Your task to perform on an android device: turn smart compose on in the gmail app Image 0: 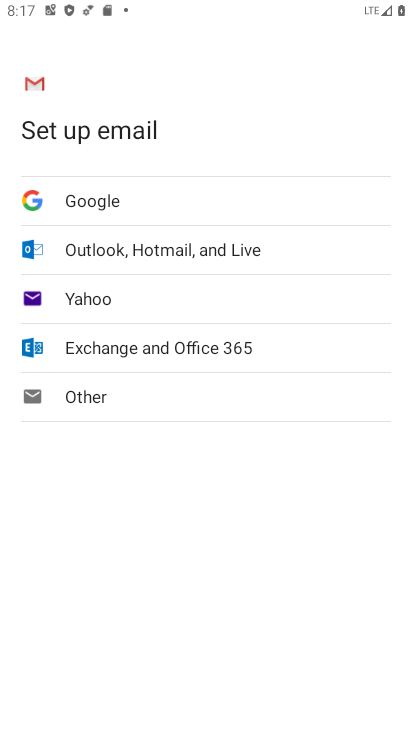
Step 0: press home button
Your task to perform on an android device: turn smart compose on in the gmail app Image 1: 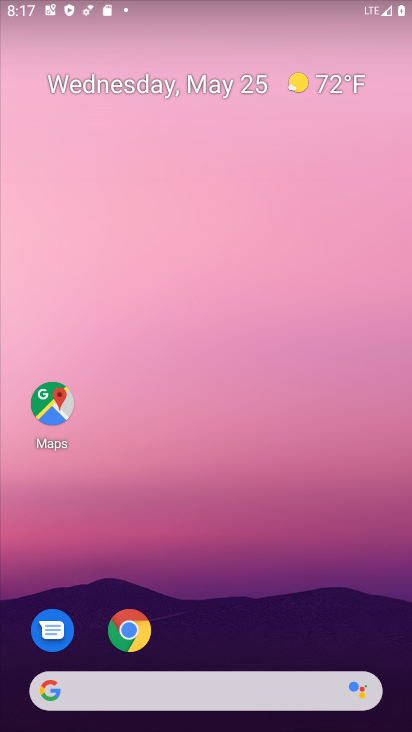
Step 1: drag from (216, 646) to (185, 278)
Your task to perform on an android device: turn smart compose on in the gmail app Image 2: 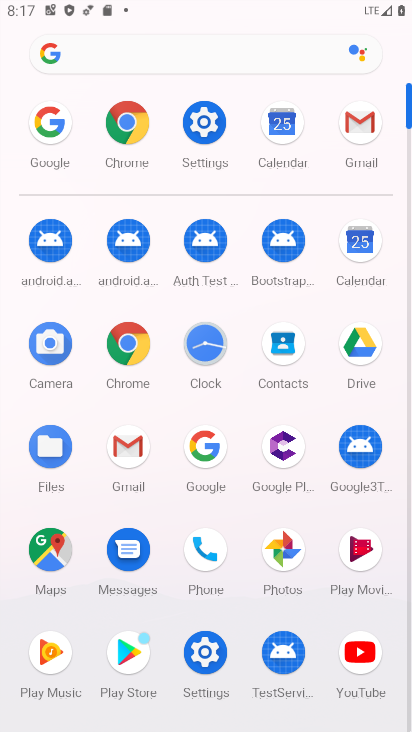
Step 2: click (366, 152)
Your task to perform on an android device: turn smart compose on in the gmail app Image 3: 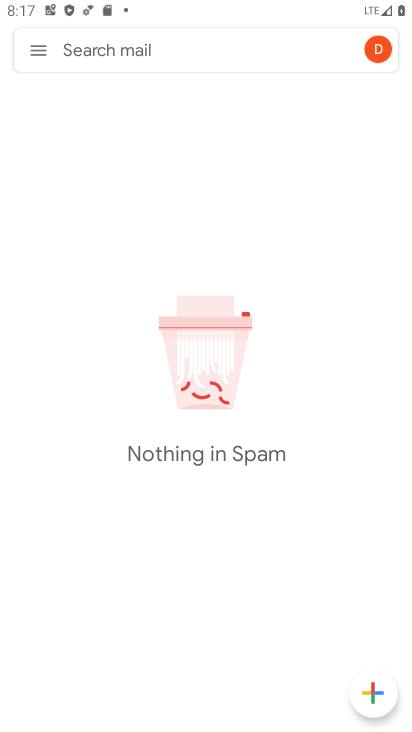
Step 3: click (24, 42)
Your task to perform on an android device: turn smart compose on in the gmail app Image 4: 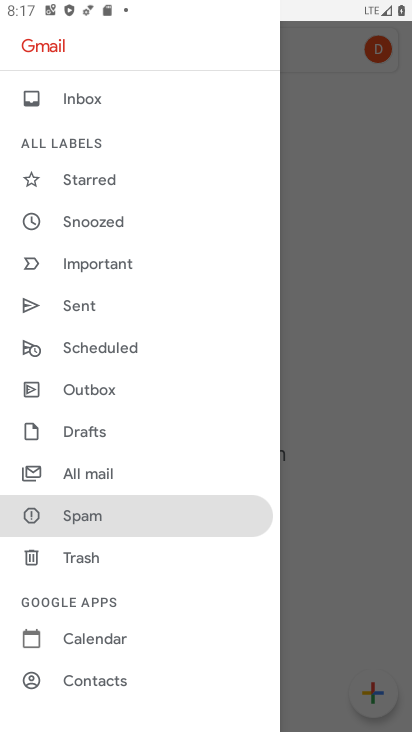
Step 4: drag from (127, 680) to (164, 248)
Your task to perform on an android device: turn smart compose on in the gmail app Image 5: 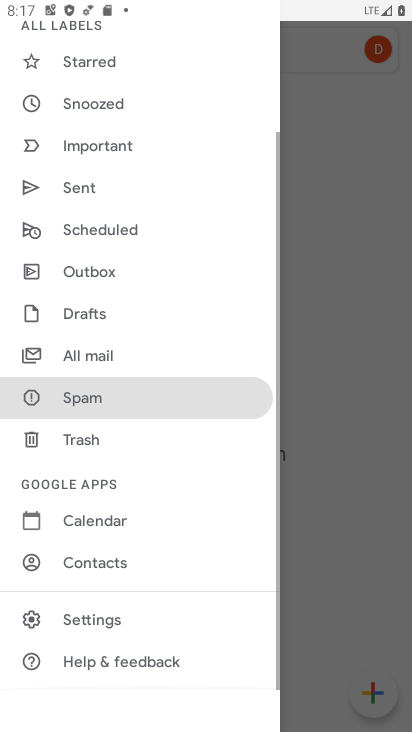
Step 5: click (118, 614)
Your task to perform on an android device: turn smart compose on in the gmail app Image 6: 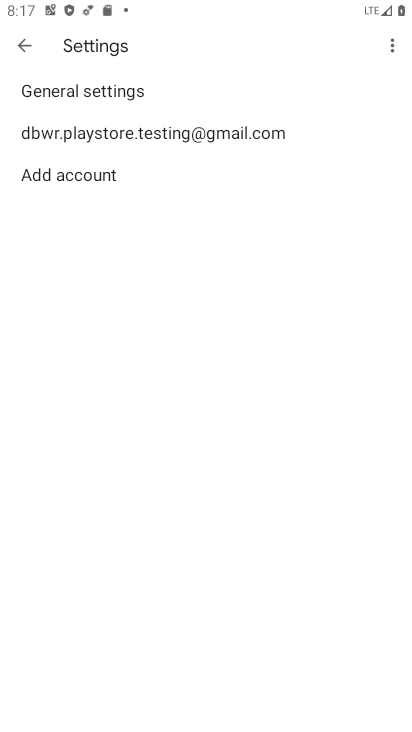
Step 6: click (90, 131)
Your task to perform on an android device: turn smart compose on in the gmail app Image 7: 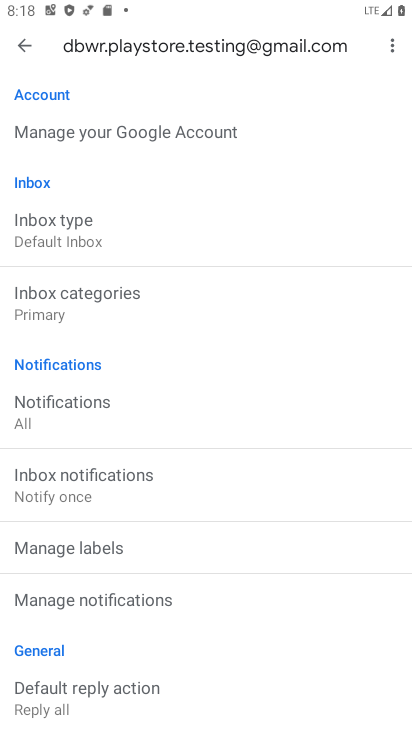
Step 7: task complete